Your task to perform on an android device: check android version Image 0: 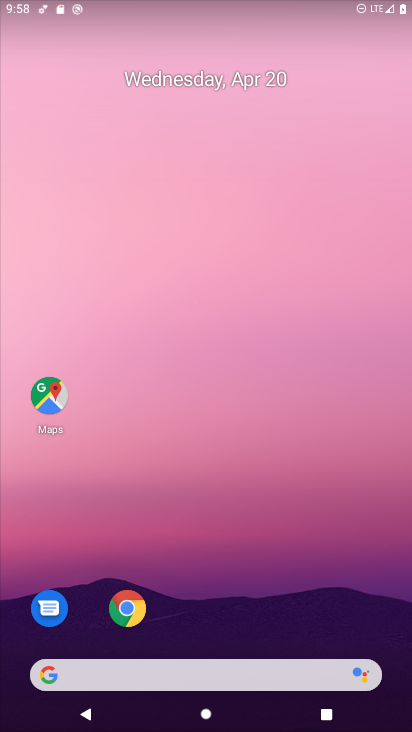
Step 0: drag from (217, 588) to (263, 177)
Your task to perform on an android device: check android version Image 1: 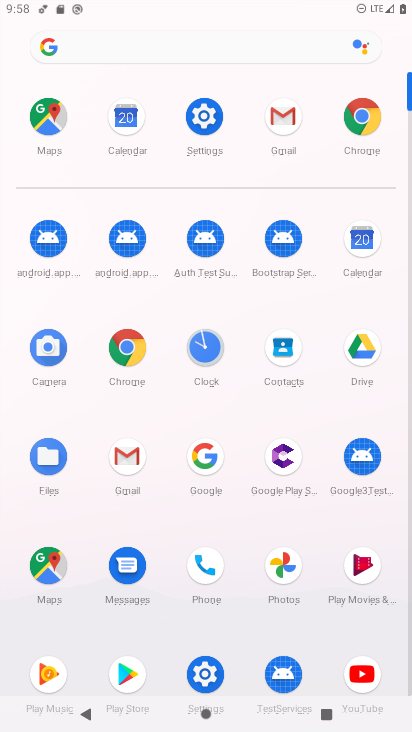
Step 1: click (210, 118)
Your task to perform on an android device: check android version Image 2: 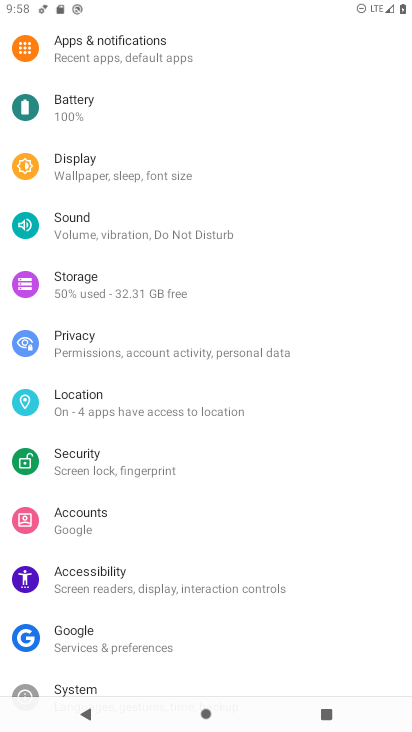
Step 2: drag from (147, 618) to (242, 178)
Your task to perform on an android device: check android version Image 3: 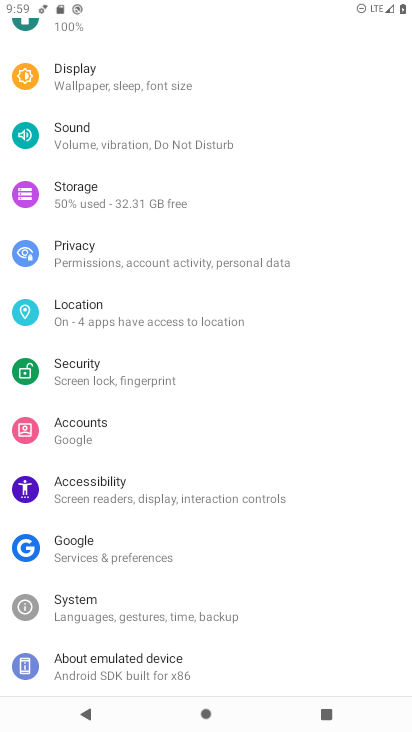
Step 3: click (98, 676)
Your task to perform on an android device: check android version Image 4: 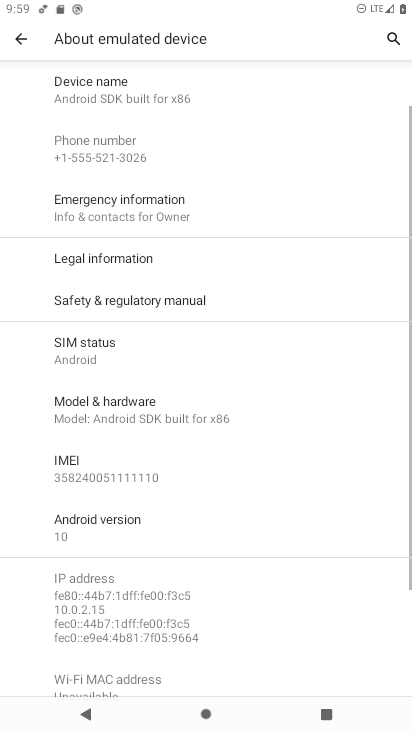
Step 4: drag from (121, 203) to (116, 250)
Your task to perform on an android device: check android version Image 5: 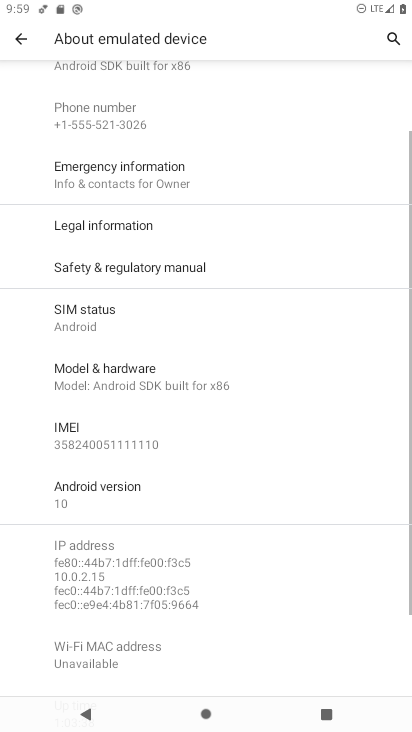
Step 5: click (97, 502)
Your task to perform on an android device: check android version Image 6: 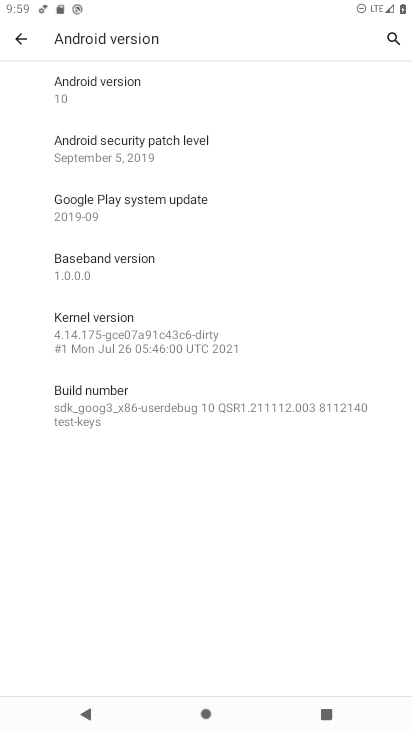
Step 6: task complete